Your task to perform on an android device: turn on data saver in the chrome app Image 0: 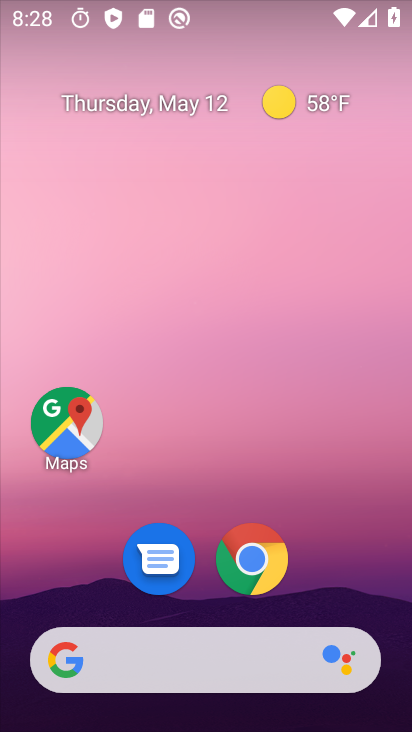
Step 0: click (249, 557)
Your task to perform on an android device: turn on data saver in the chrome app Image 1: 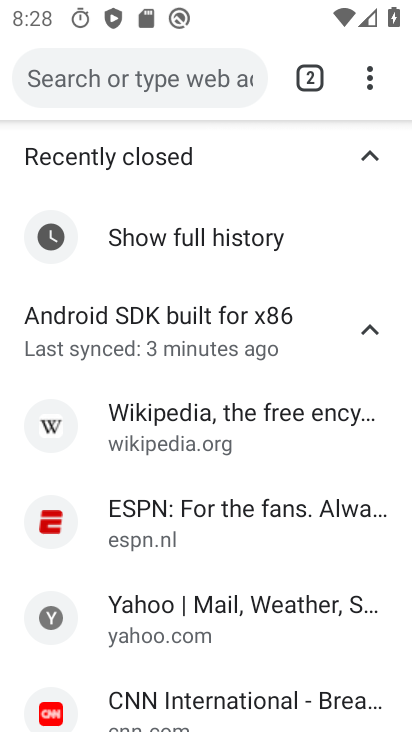
Step 1: click (370, 75)
Your task to perform on an android device: turn on data saver in the chrome app Image 2: 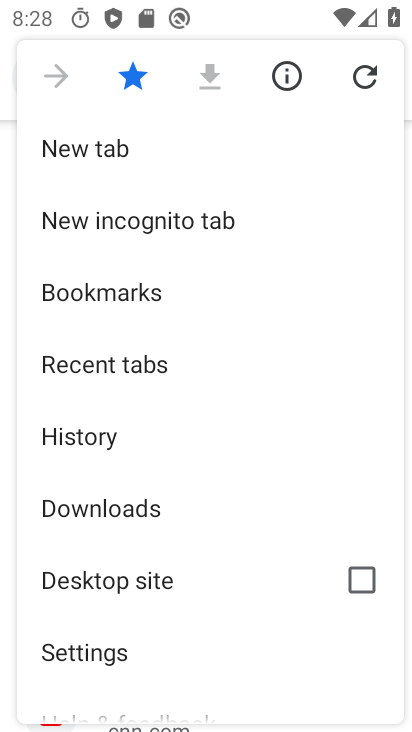
Step 2: click (94, 648)
Your task to perform on an android device: turn on data saver in the chrome app Image 3: 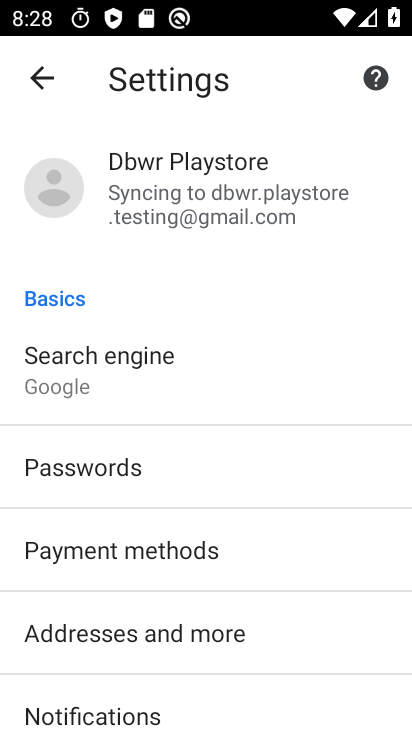
Step 3: drag from (171, 653) to (260, 487)
Your task to perform on an android device: turn on data saver in the chrome app Image 4: 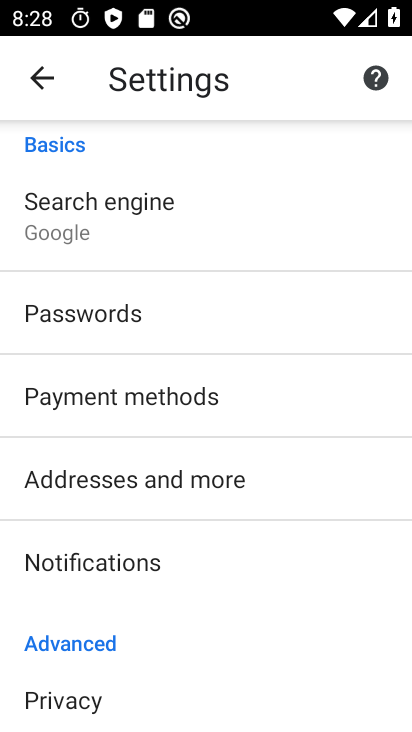
Step 4: drag from (142, 678) to (248, 464)
Your task to perform on an android device: turn on data saver in the chrome app Image 5: 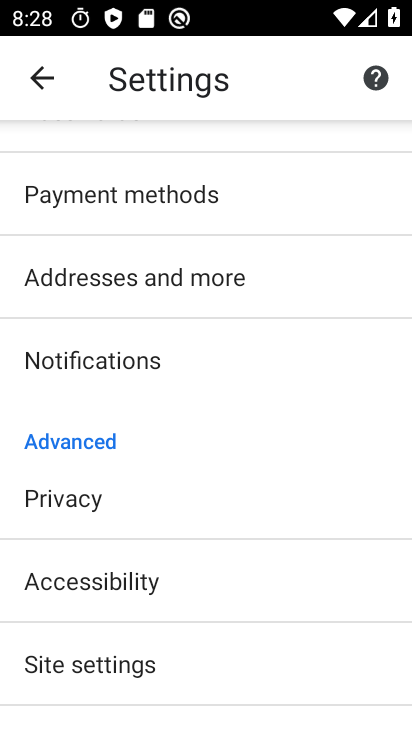
Step 5: drag from (170, 676) to (224, 508)
Your task to perform on an android device: turn on data saver in the chrome app Image 6: 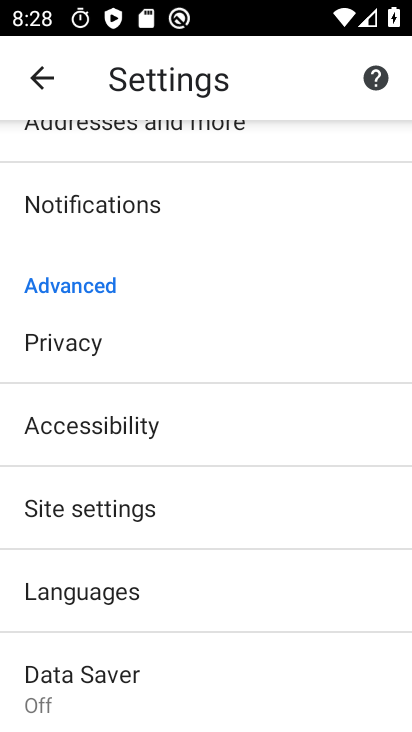
Step 6: click (96, 677)
Your task to perform on an android device: turn on data saver in the chrome app Image 7: 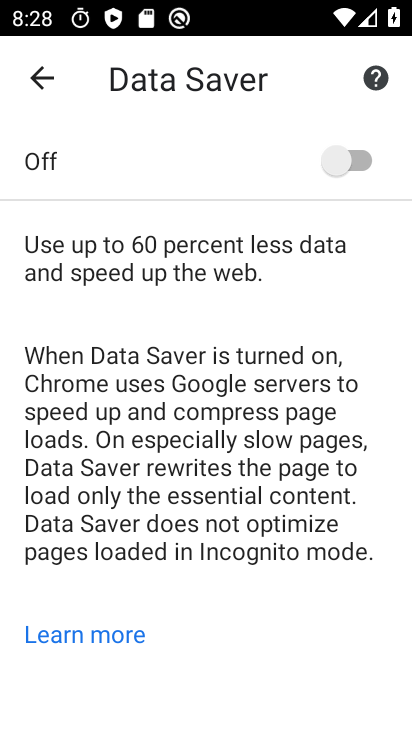
Step 7: click (345, 168)
Your task to perform on an android device: turn on data saver in the chrome app Image 8: 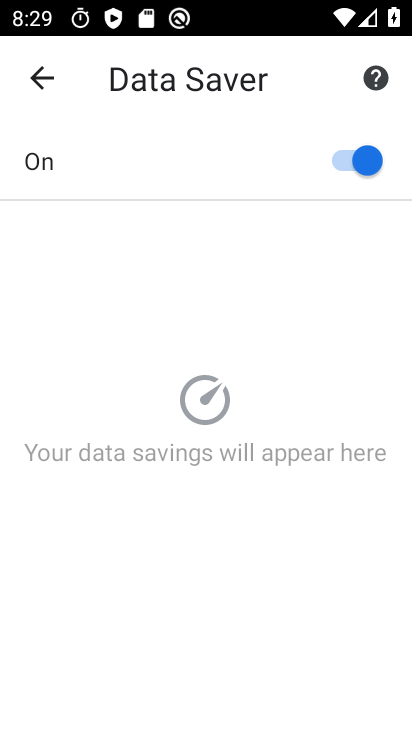
Step 8: task complete